Your task to perform on an android device: Go to Amazon Image 0: 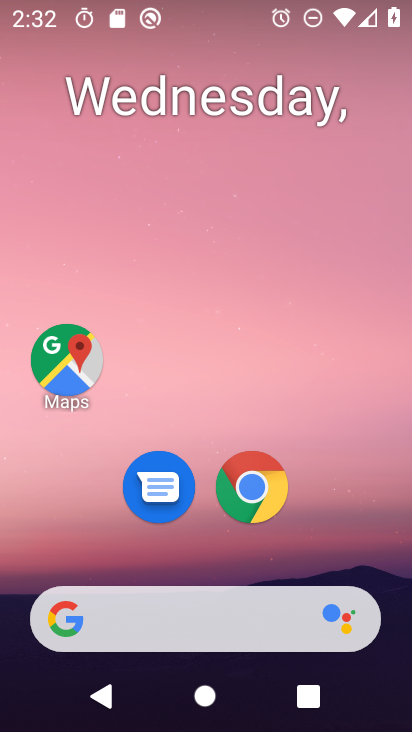
Step 0: press back button
Your task to perform on an android device: Go to Amazon Image 1: 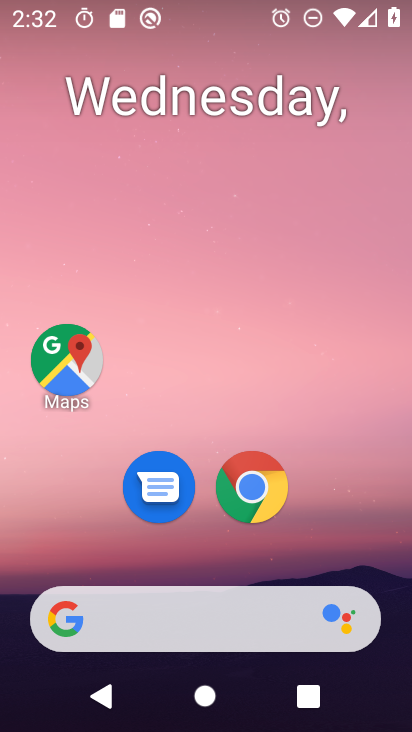
Step 1: click (241, 474)
Your task to perform on an android device: Go to Amazon Image 2: 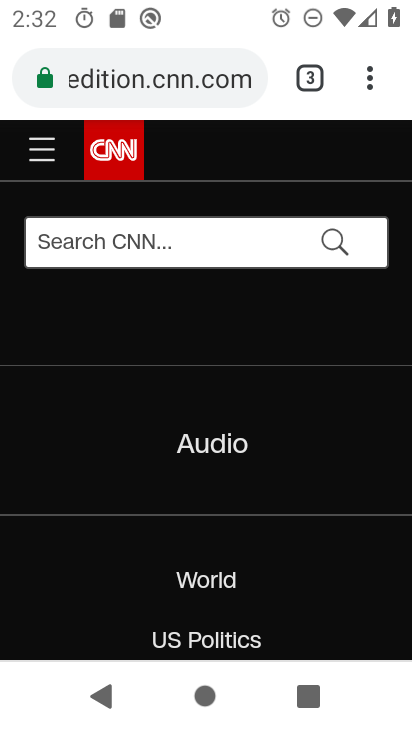
Step 2: click (308, 79)
Your task to perform on an android device: Go to Amazon Image 3: 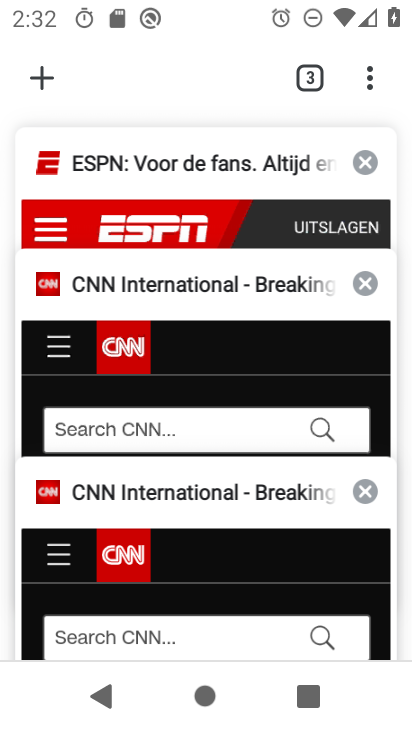
Step 3: click (32, 79)
Your task to perform on an android device: Go to Amazon Image 4: 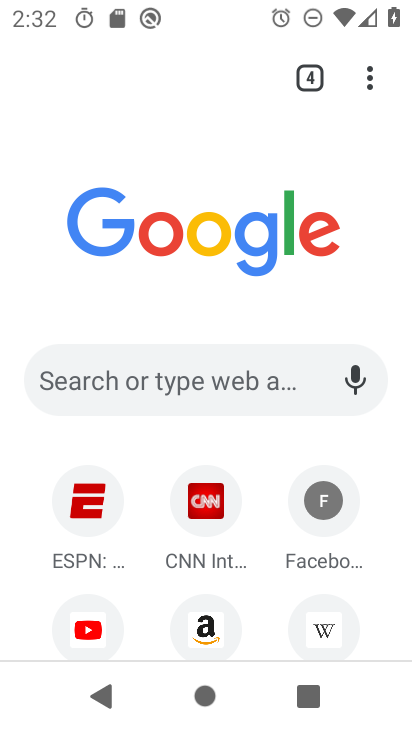
Step 4: click (213, 638)
Your task to perform on an android device: Go to Amazon Image 5: 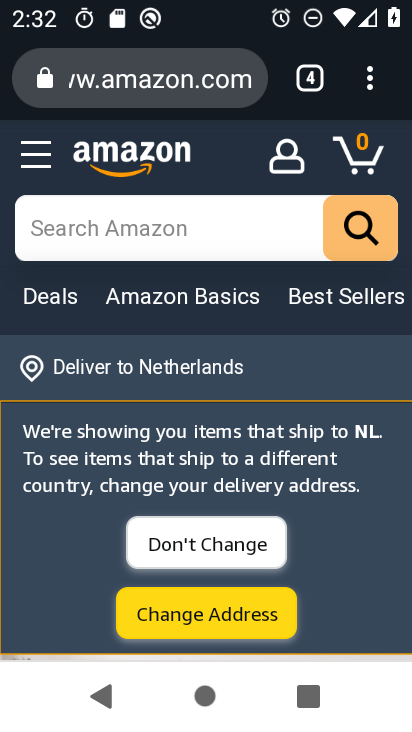
Step 5: task complete